Your task to perform on an android device: What's the weather going to be this weekend? Image 0: 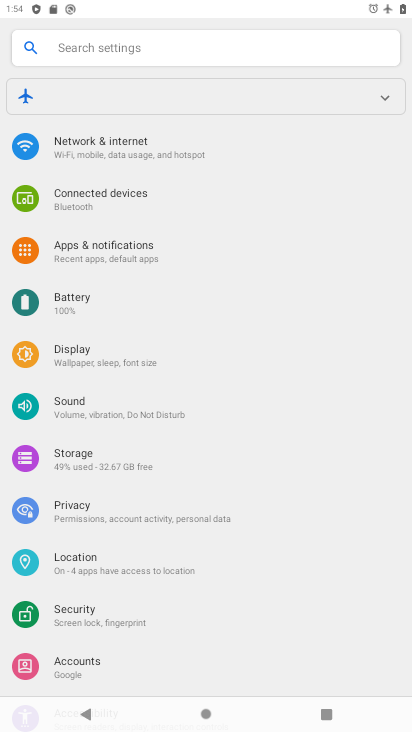
Step 0: press home button
Your task to perform on an android device: What's the weather going to be this weekend? Image 1: 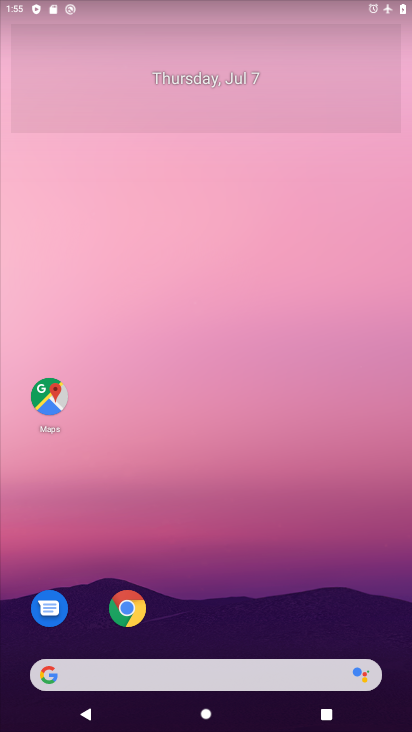
Step 1: drag from (236, 722) to (236, 516)
Your task to perform on an android device: What's the weather going to be this weekend? Image 2: 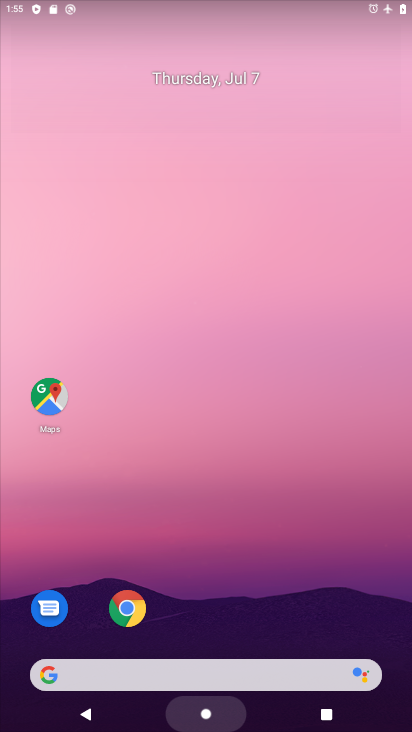
Step 2: drag from (236, 182) to (236, 107)
Your task to perform on an android device: What's the weather going to be this weekend? Image 3: 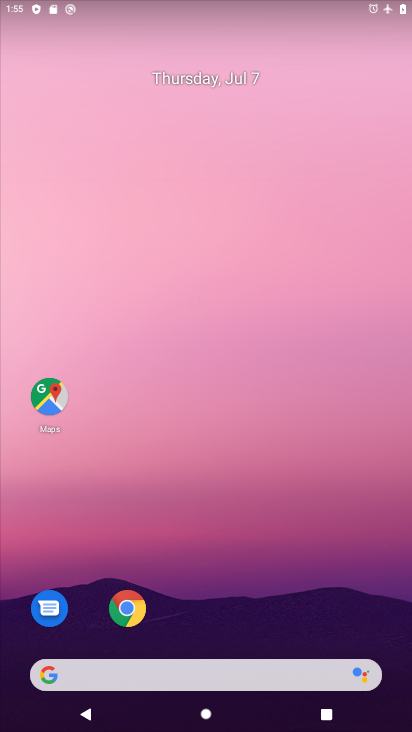
Step 3: drag from (279, 724) to (276, 555)
Your task to perform on an android device: What's the weather going to be this weekend? Image 4: 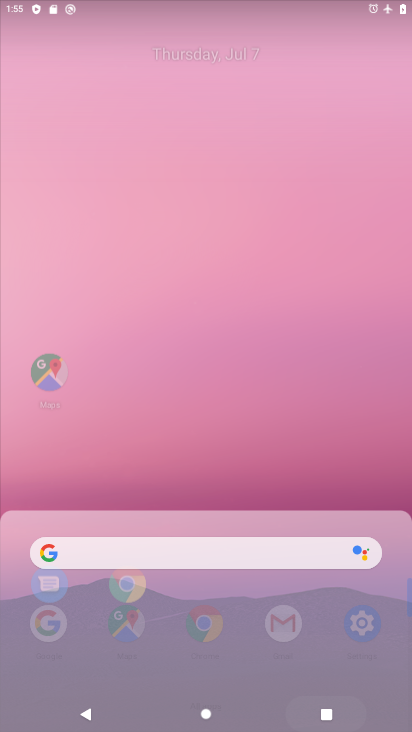
Step 4: drag from (274, 101) to (274, 3)
Your task to perform on an android device: What's the weather going to be this weekend? Image 5: 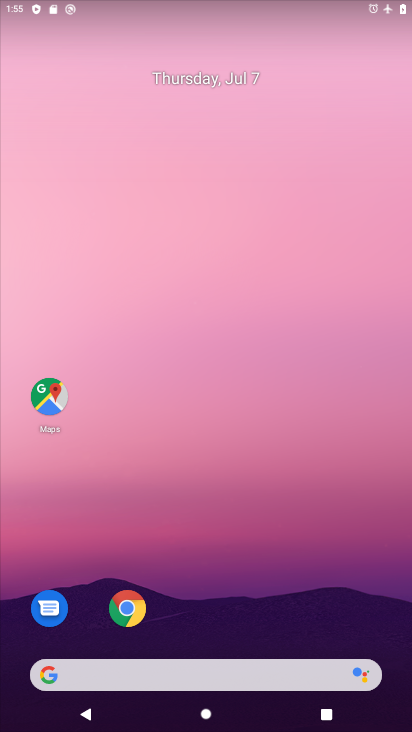
Step 5: drag from (261, 643) to (257, 384)
Your task to perform on an android device: What's the weather going to be this weekend? Image 6: 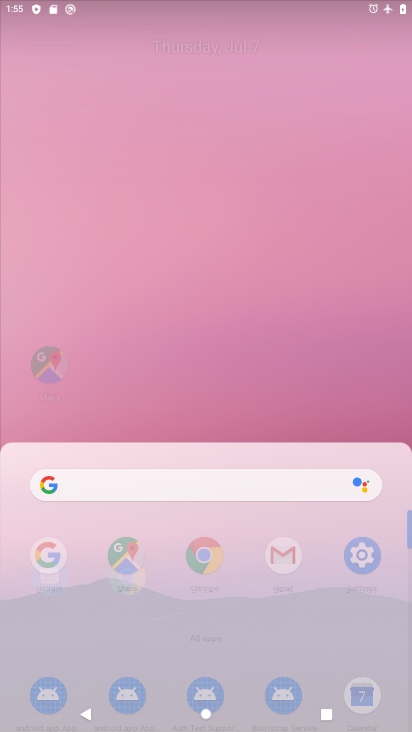
Step 6: click (255, 104)
Your task to perform on an android device: What's the weather going to be this weekend? Image 7: 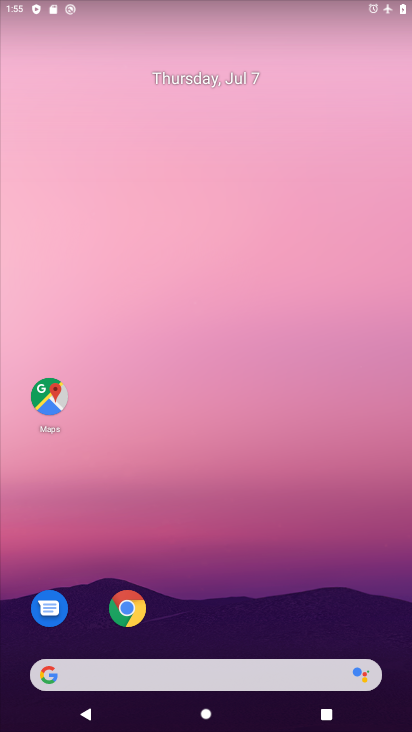
Step 7: drag from (275, 626) to (275, 333)
Your task to perform on an android device: What's the weather going to be this weekend? Image 8: 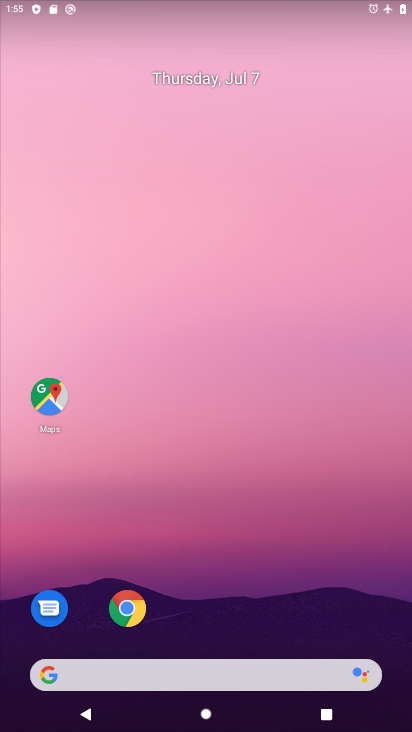
Step 8: click (275, 714)
Your task to perform on an android device: What's the weather going to be this weekend? Image 9: 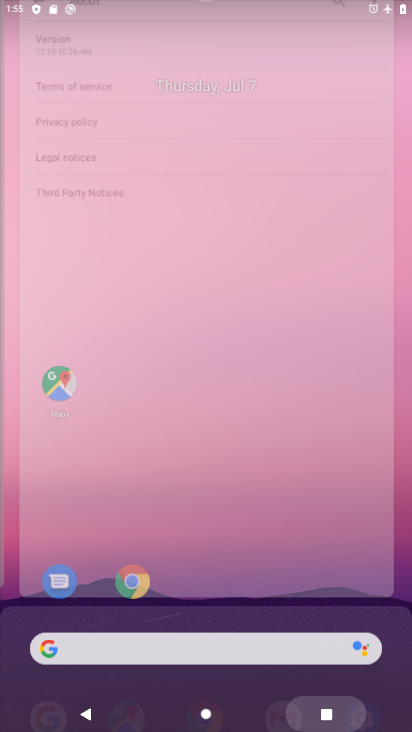
Step 9: drag from (237, 1) to (299, 41)
Your task to perform on an android device: What's the weather going to be this weekend? Image 10: 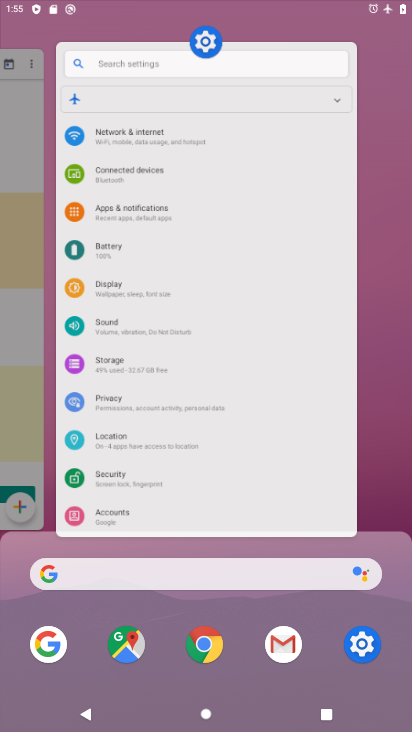
Step 10: click (40, 646)
Your task to perform on an android device: What's the weather going to be this weekend? Image 11: 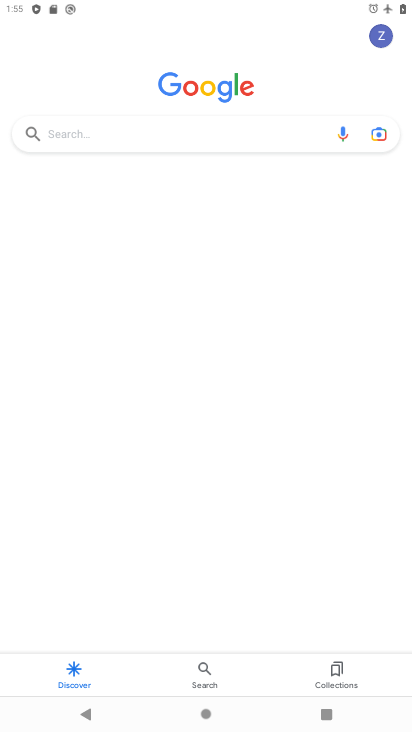
Step 11: drag from (205, 201) to (186, 607)
Your task to perform on an android device: What's the weather going to be this weekend? Image 12: 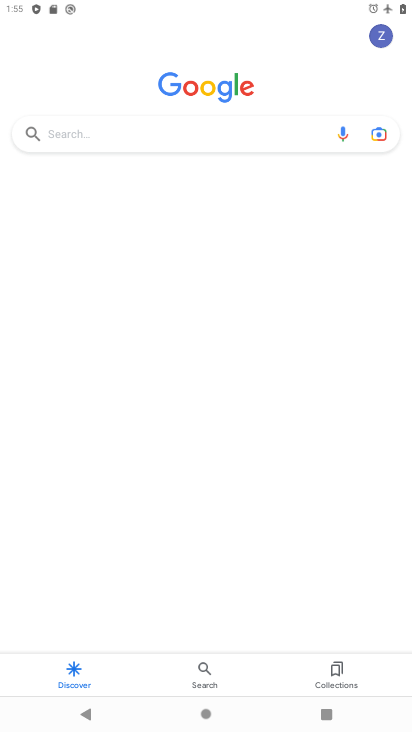
Step 12: drag from (246, 228) to (265, 591)
Your task to perform on an android device: What's the weather going to be this weekend? Image 13: 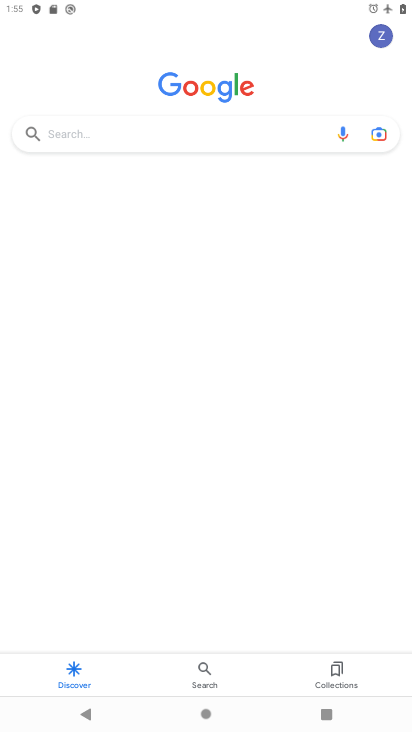
Step 13: press home button
Your task to perform on an android device: What's the weather going to be this weekend? Image 14: 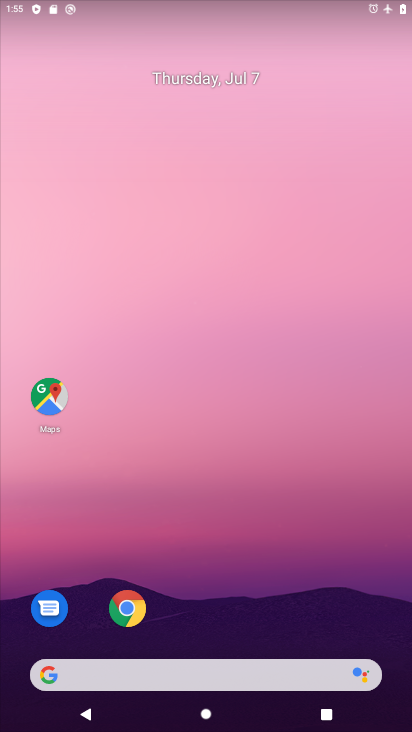
Step 14: drag from (258, 714) to (252, 111)
Your task to perform on an android device: What's the weather going to be this weekend? Image 15: 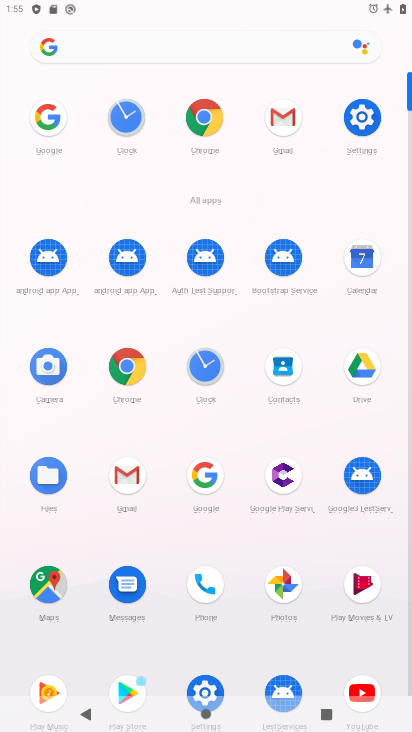
Step 15: click (363, 114)
Your task to perform on an android device: What's the weather going to be this weekend? Image 16: 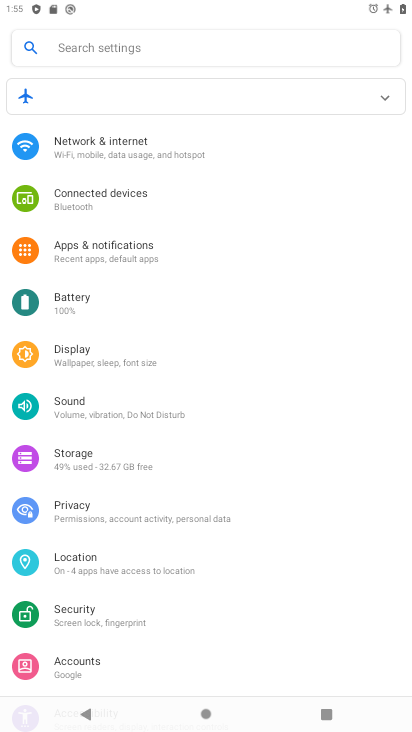
Step 16: click (114, 145)
Your task to perform on an android device: What's the weather going to be this weekend? Image 17: 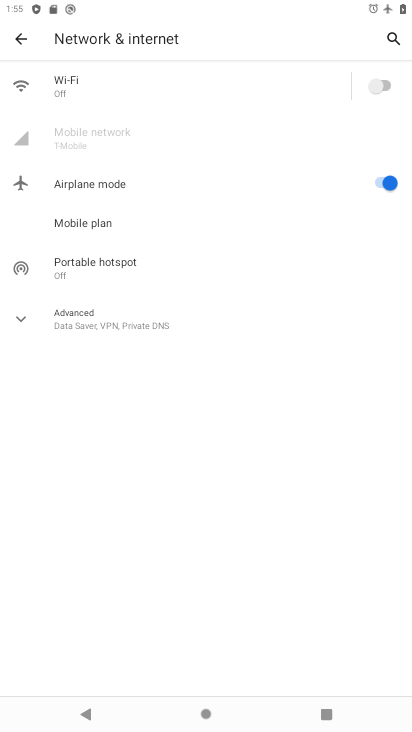
Step 17: click (381, 178)
Your task to perform on an android device: What's the weather going to be this weekend? Image 18: 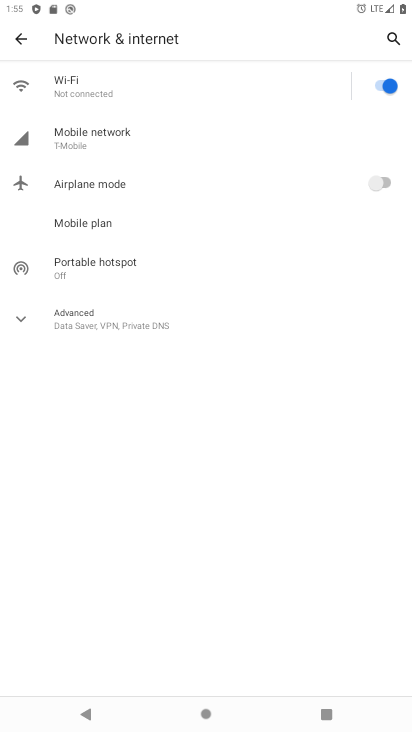
Step 18: click (19, 37)
Your task to perform on an android device: What's the weather going to be this weekend? Image 19: 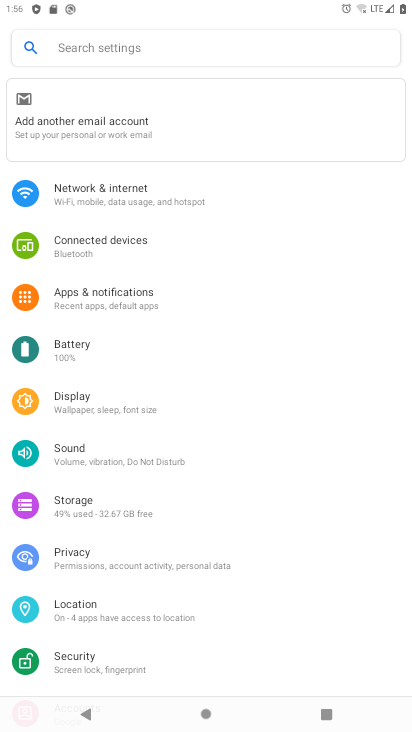
Step 19: task complete